Your task to perform on an android device: open app "Microsoft Excel" (install if not already installed) and go to login screen Image 0: 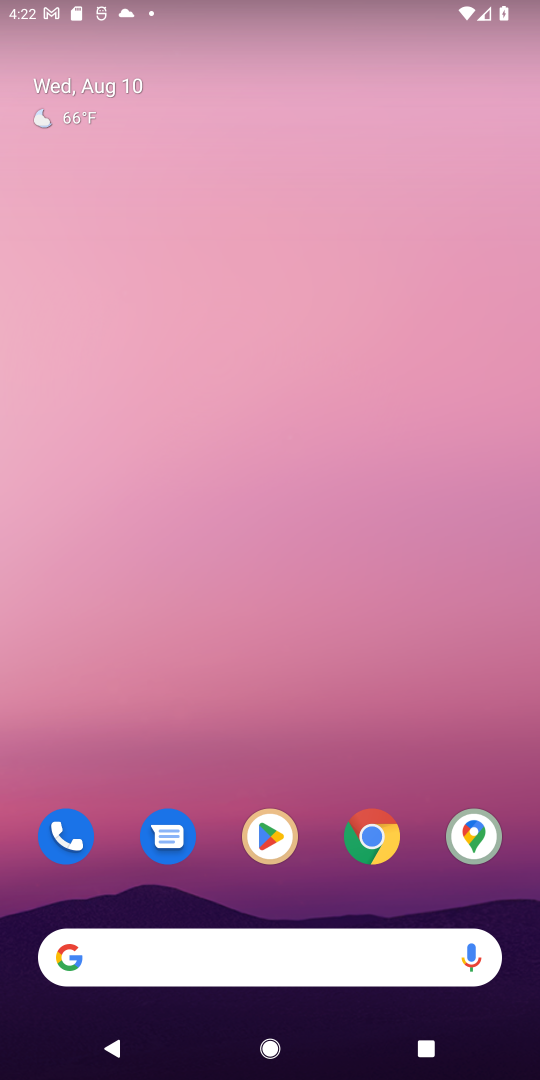
Step 0: drag from (277, 852) to (264, 141)
Your task to perform on an android device: open app "Microsoft Excel" (install if not already installed) and go to login screen Image 1: 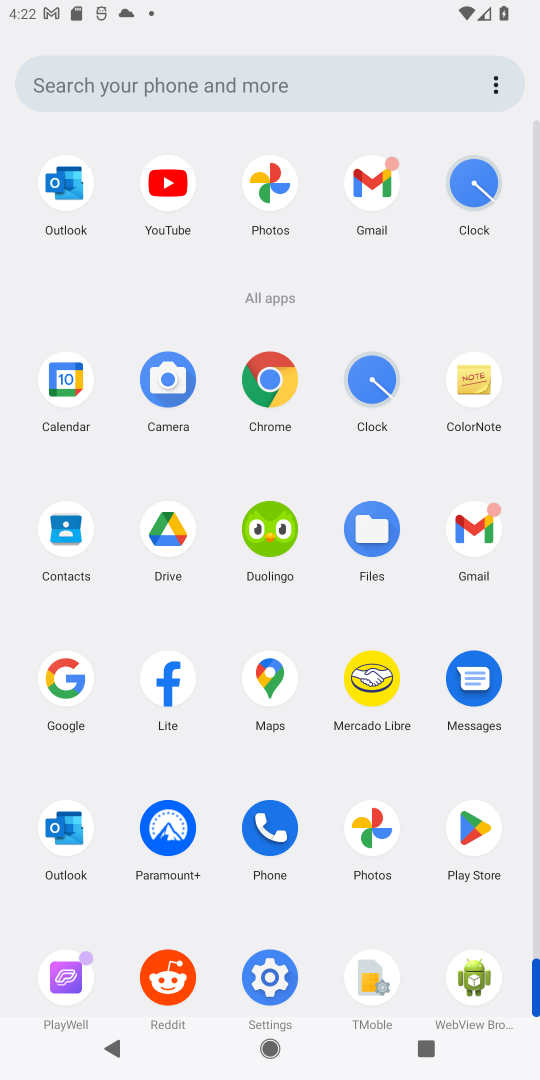
Step 1: click (470, 816)
Your task to perform on an android device: open app "Microsoft Excel" (install if not already installed) and go to login screen Image 2: 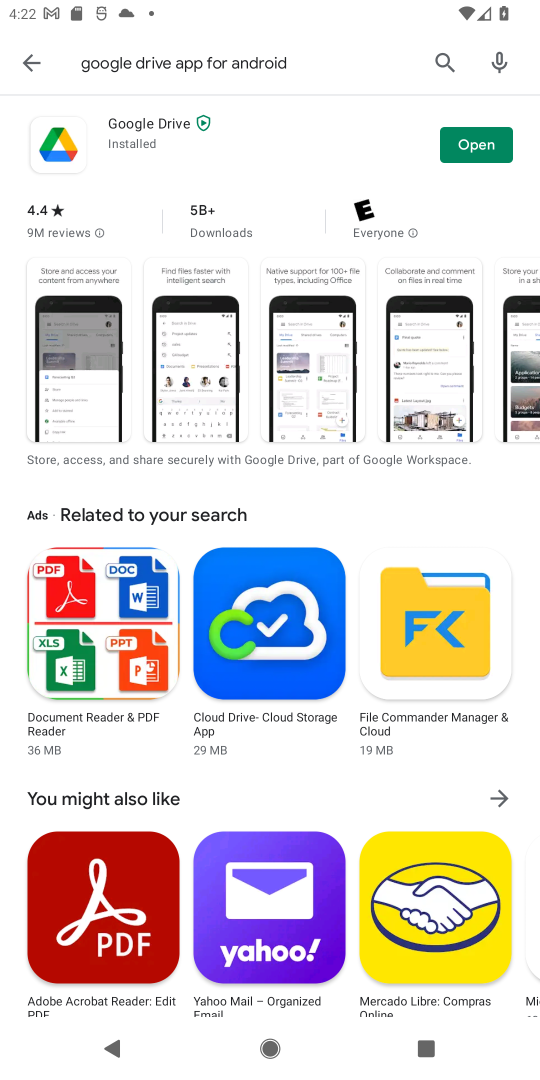
Step 2: click (47, 62)
Your task to perform on an android device: open app "Microsoft Excel" (install if not already installed) and go to login screen Image 3: 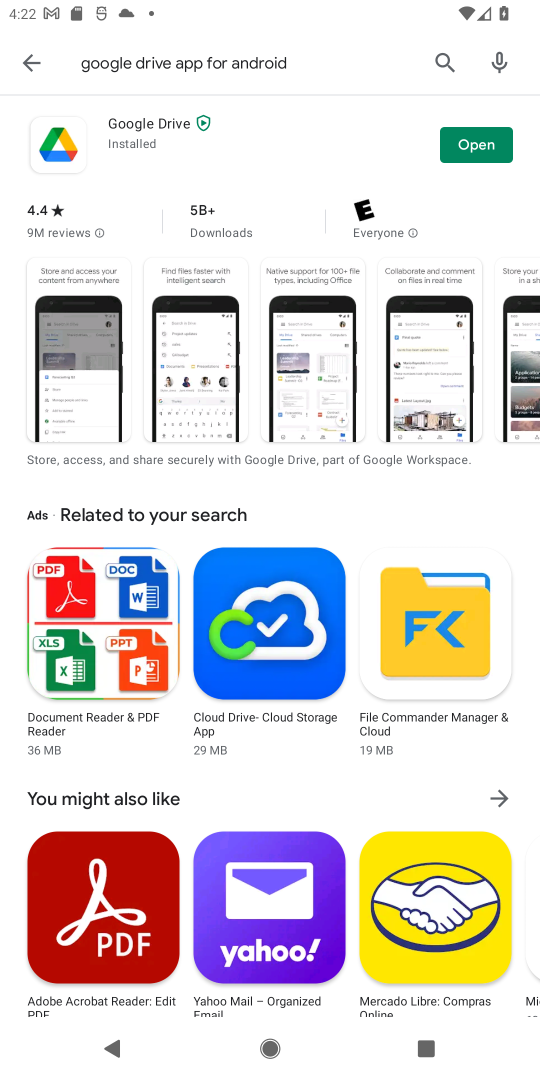
Step 3: click (33, 60)
Your task to perform on an android device: open app "Microsoft Excel" (install if not already installed) and go to login screen Image 4: 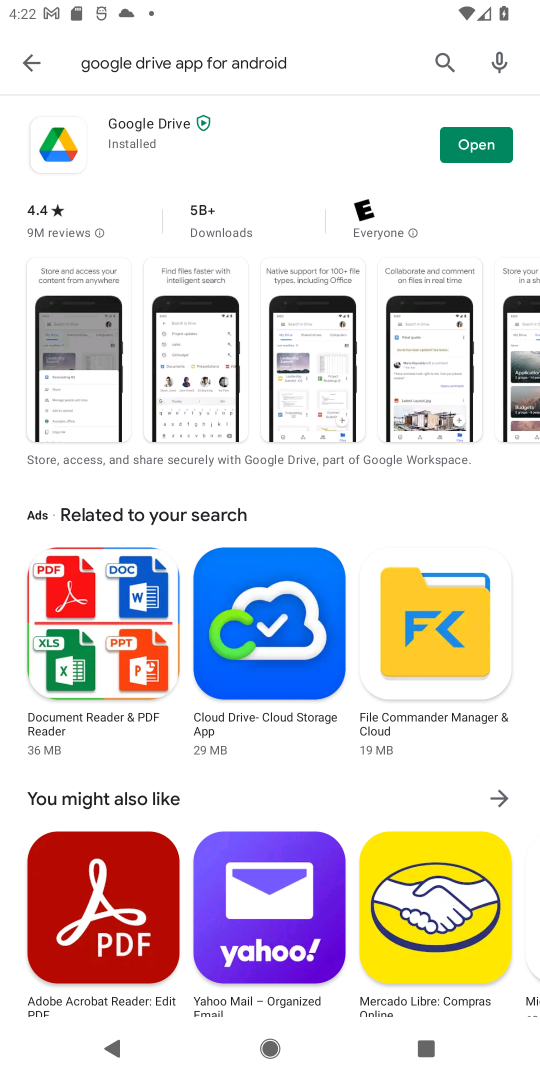
Step 4: click (33, 60)
Your task to perform on an android device: open app "Microsoft Excel" (install if not already installed) and go to login screen Image 5: 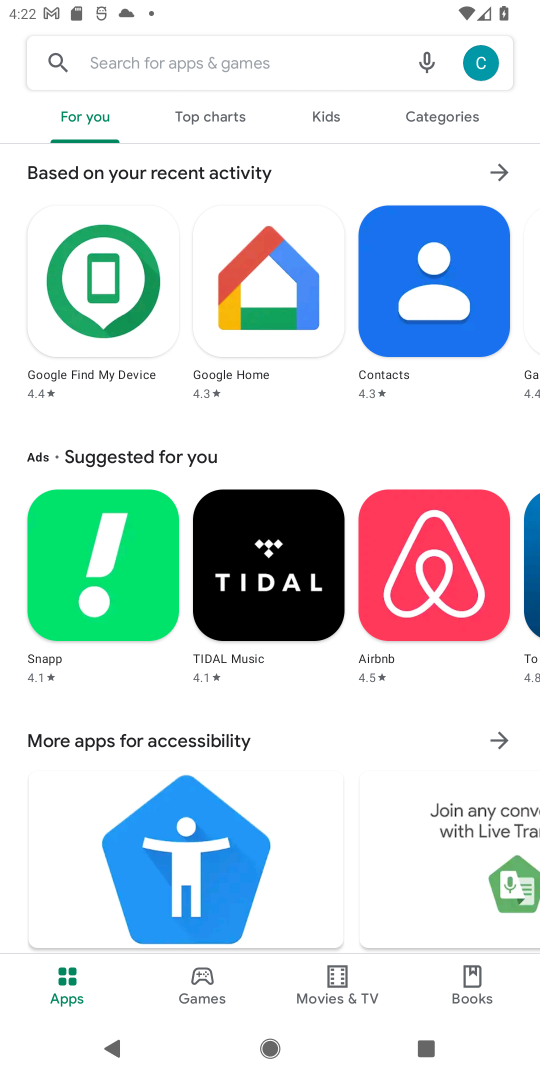
Step 5: click (33, 60)
Your task to perform on an android device: open app "Microsoft Excel" (install if not already installed) and go to login screen Image 6: 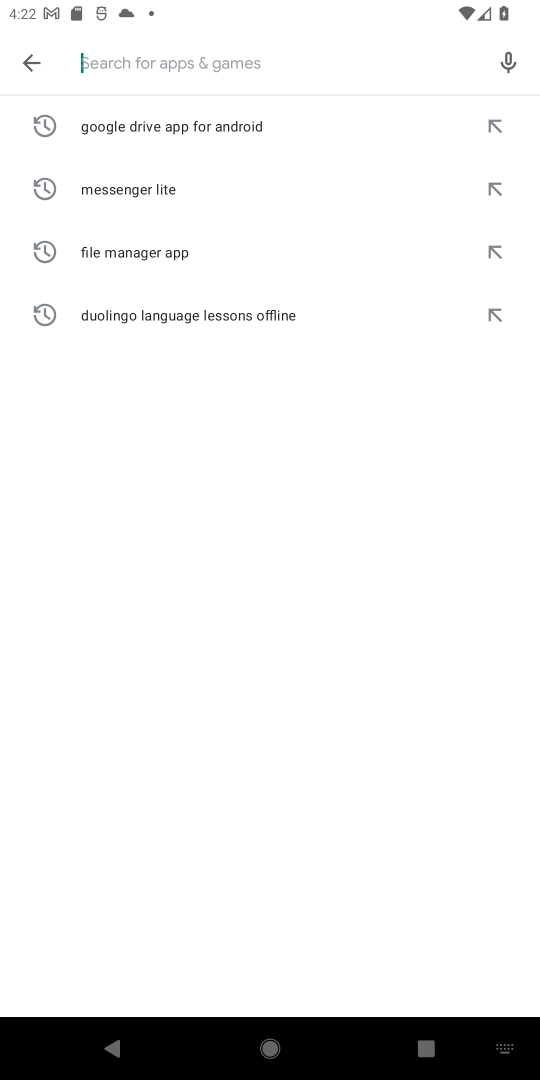
Step 6: click (274, 53)
Your task to perform on an android device: open app "Microsoft Excel" (install if not already installed) and go to login screen Image 7: 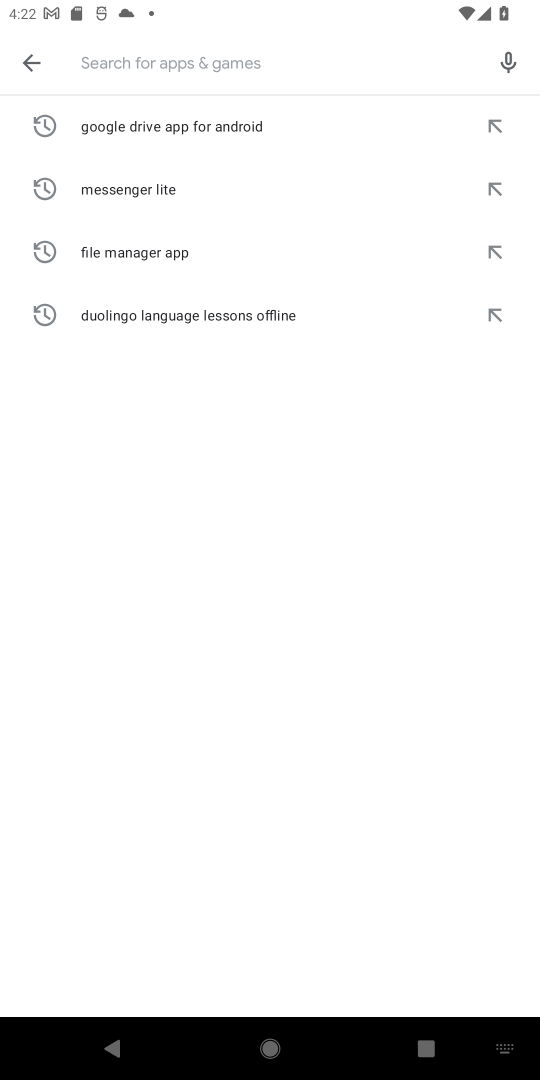
Step 7: click (258, 54)
Your task to perform on an android device: open app "Microsoft Excel" (install if not already installed) and go to login screen Image 8: 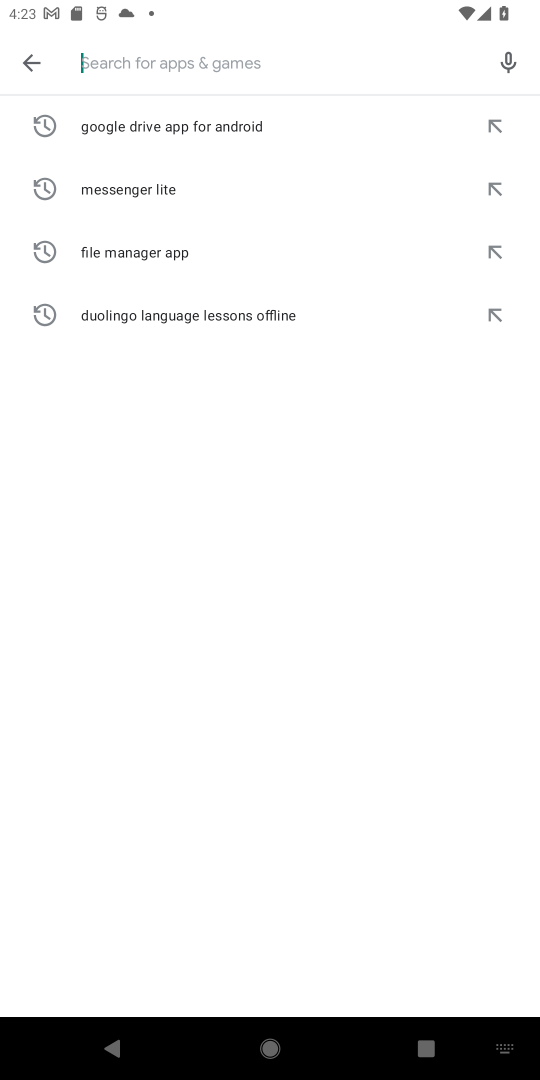
Step 8: type "microsoft excel "
Your task to perform on an android device: open app "Microsoft Excel" (install if not already installed) and go to login screen Image 9: 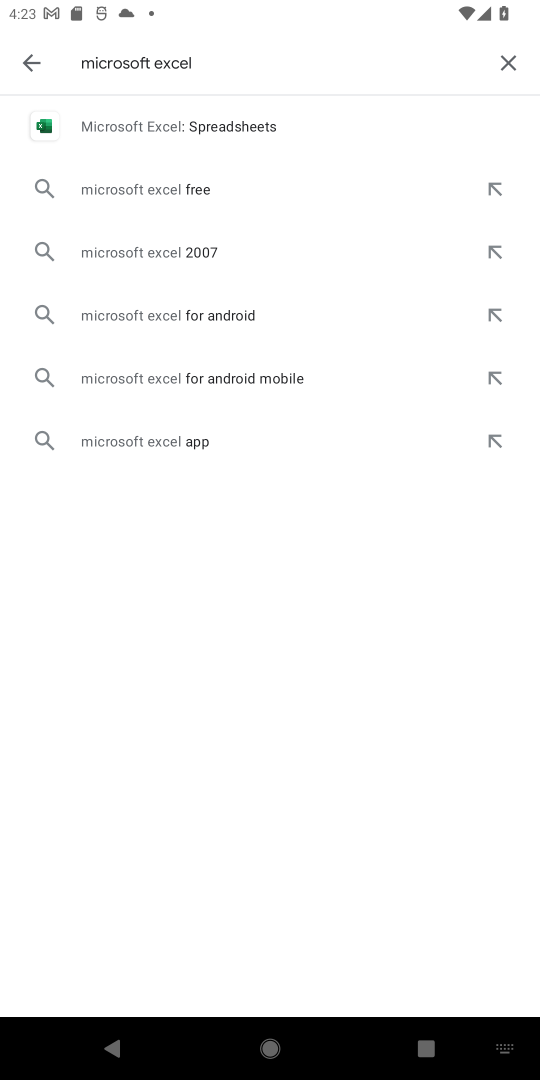
Step 9: click (151, 431)
Your task to perform on an android device: open app "Microsoft Excel" (install if not already installed) and go to login screen Image 10: 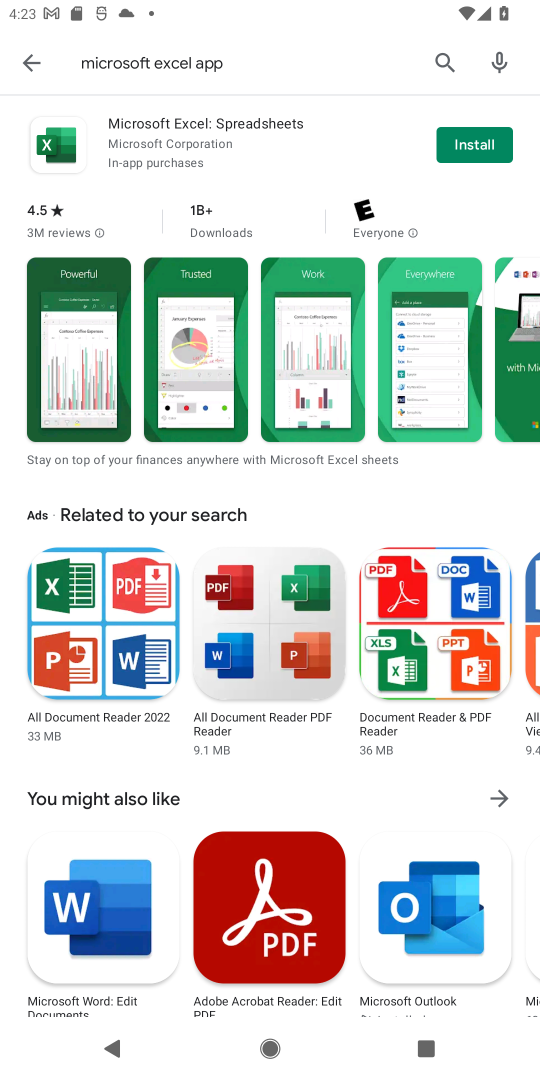
Step 10: click (464, 149)
Your task to perform on an android device: open app "Microsoft Excel" (install if not already installed) and go to login screen Image 11: 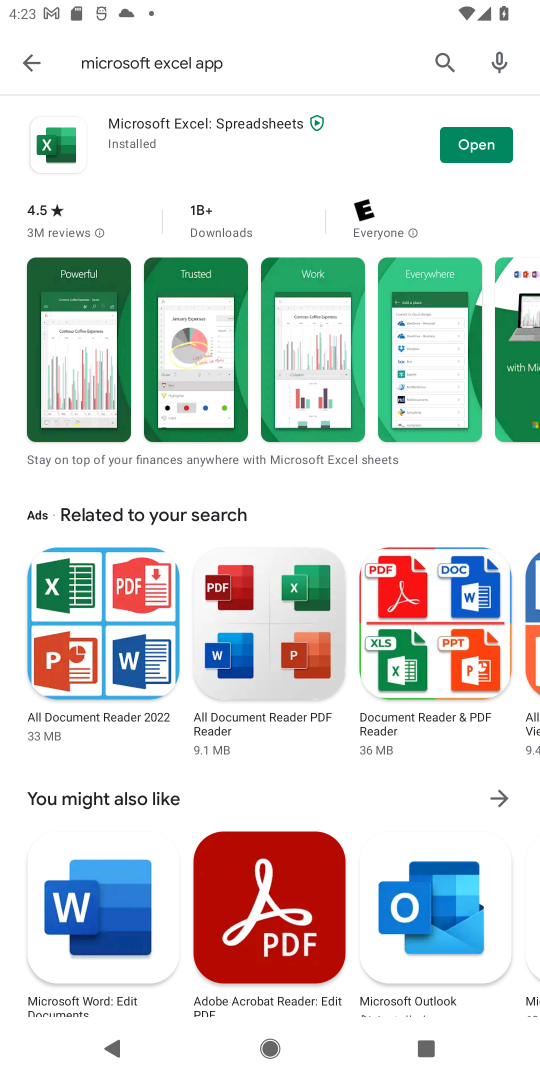
Step 11: click (470, 146)
Your task to perform on an android device: open app "Microsoft Excel" (install if not already installed) and go to login screen Image 12: 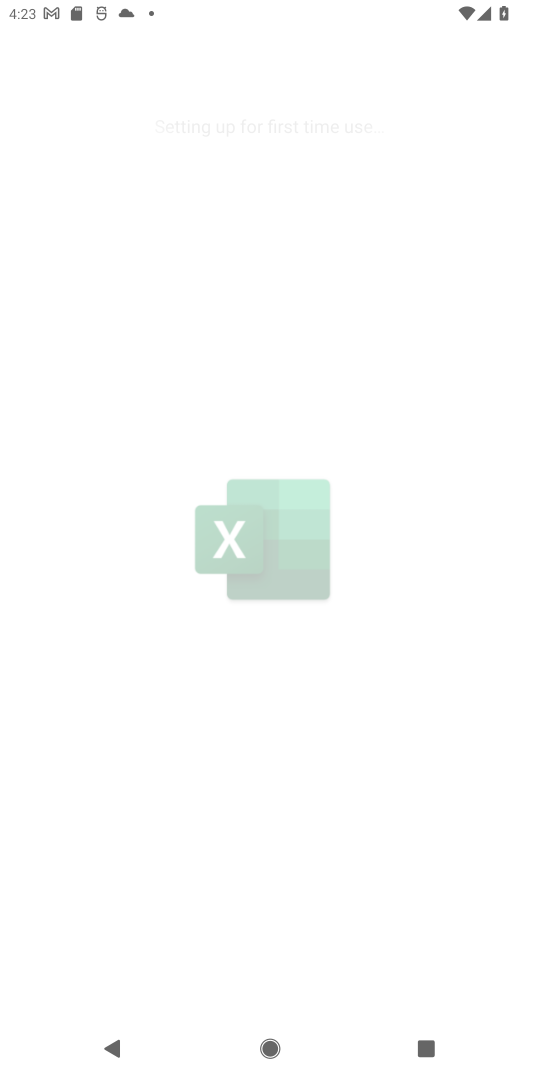
Step 12: task complete